Your task to perform on an android device: move an email to a new category in the gmail app Image 0: 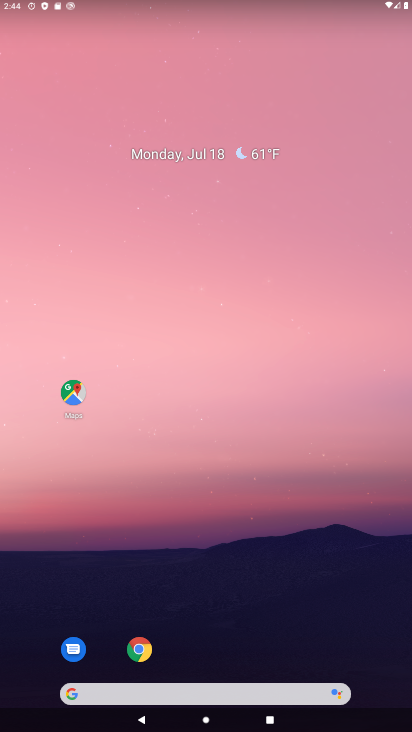
Step 0: drag from (45, 683) to (194, 228)
Your task to perform on an android device: move an email to a new category in the gmail app Image 1: 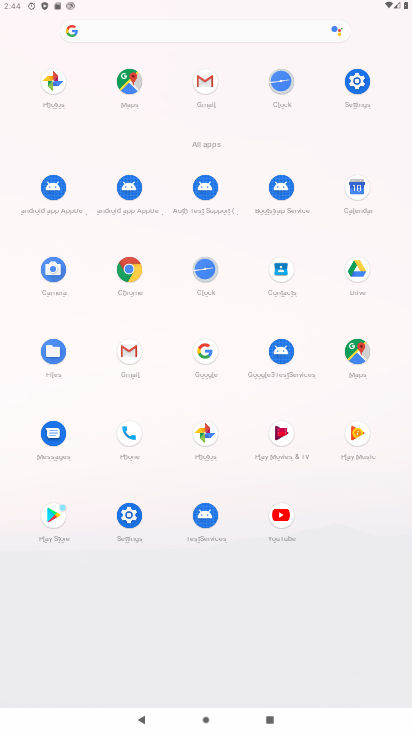
Step 1: click (125, 347)
Your task to perform on an android device: move an email to a new category in the gmail app Image 2: 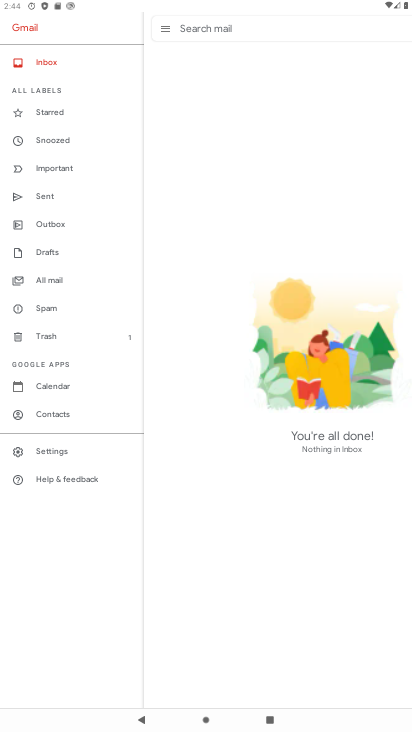
Step 2: click (55, 64)
Your task to perform on an android device: move an email to a new category in the gmail app Image 3: 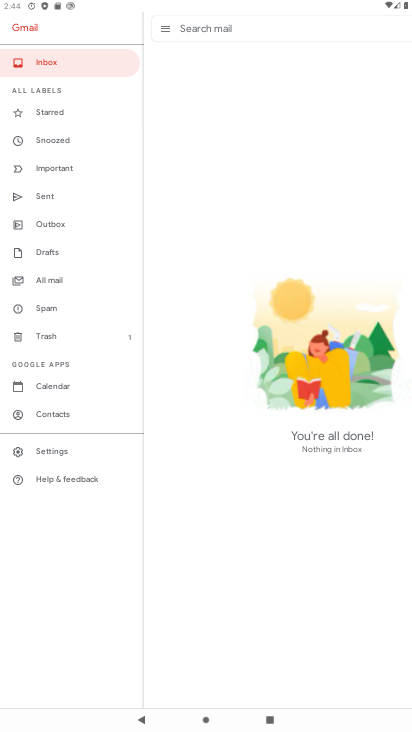
Step 3: task complete